Your task to perform on an android device: toggle airplane mode Image 0: 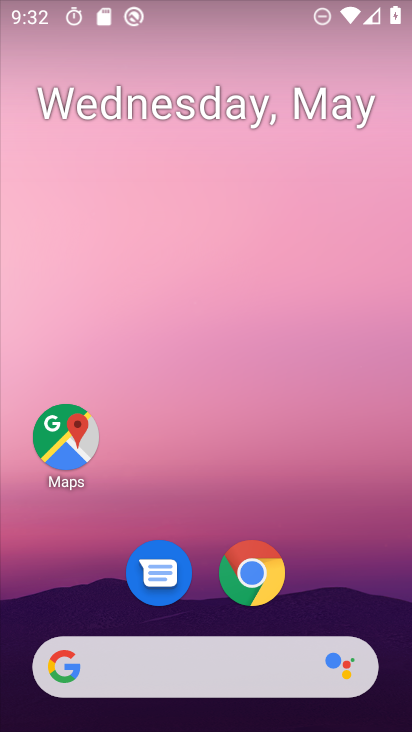
Step 0: drag from (388, 634) to (352, 396)
Your task to perform on an android device: toggle airplane mode Image 1: 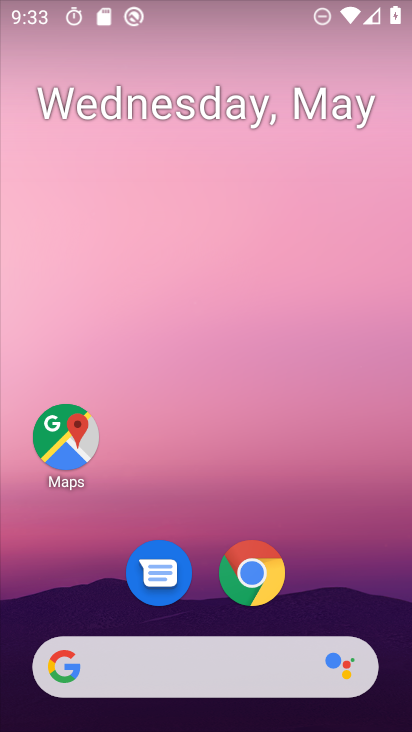
Step 1: drag from (397, 709) to (386, 207)
Your task to perform on an android device: toggle airplane mode Image 2: 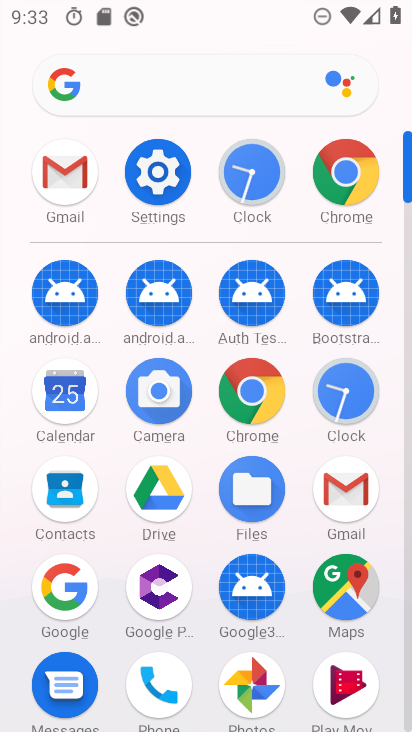
Step 2: click (173, 181)
Your task to perform on an android device: toggle airplane mode Image 3: 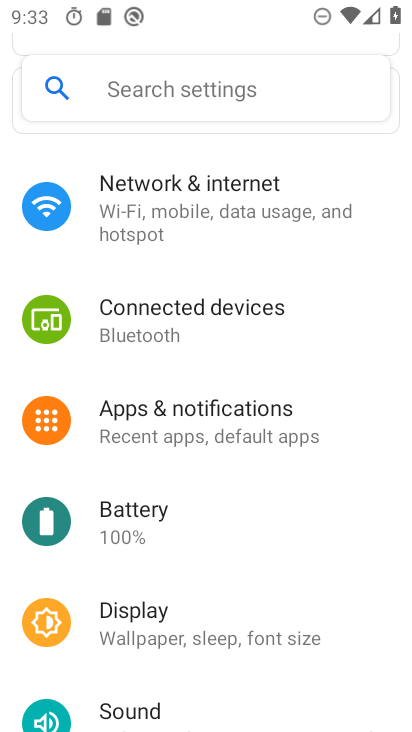
Step 3: click (182, 216)
Your task to perform on an android device: toggle airplane mode Image 4: 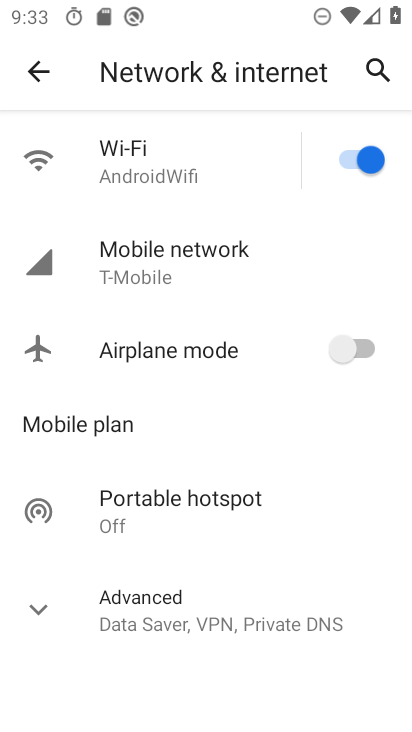
Step 4: click (356, 350)
Your task to perform on an android device: toggle airplane mode Image 5: 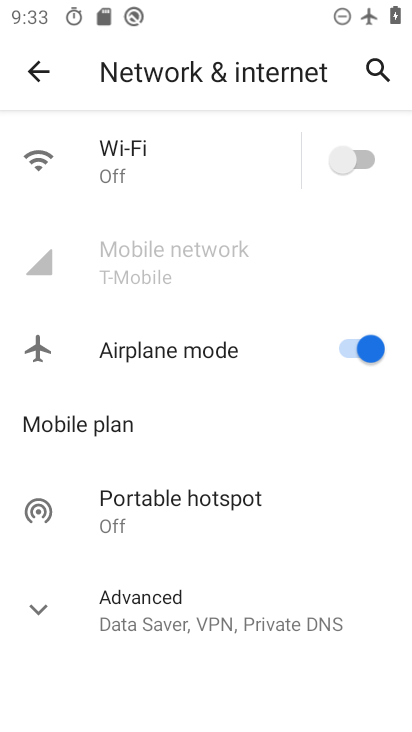
Step 5: task complete